Your task to perform on an android device: turn on javascript in the chrome app Image 0: 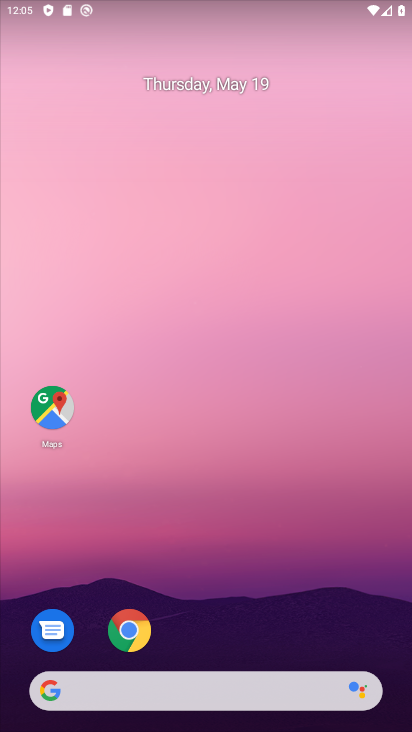
Step 0: click (133, 636)
Your task to perform on an android device: turn on javascript in the chrome app Image 1: 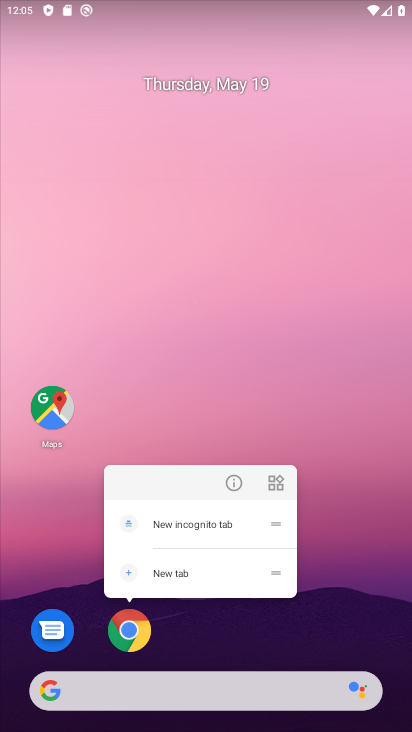
Step 1: click (226, 478)
Your task to perform on an android device: turn on javascript in the chrome app Image 2: 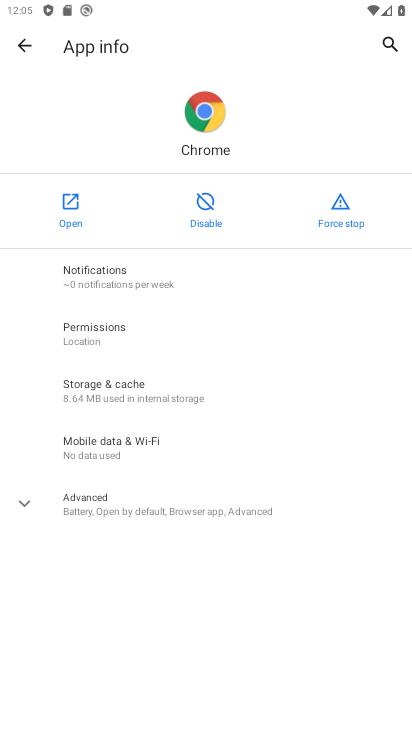
Step 2: click (53, 210)
Your task to perform on an android device: turn on javascript in the chrome app Image 3: 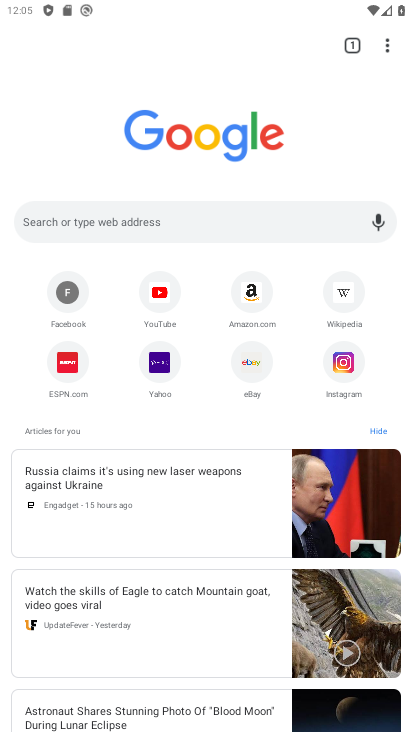
Step 3: click (378, 50)
Your task to perform on an android device: turn on javascript in the chrome app Image 4: 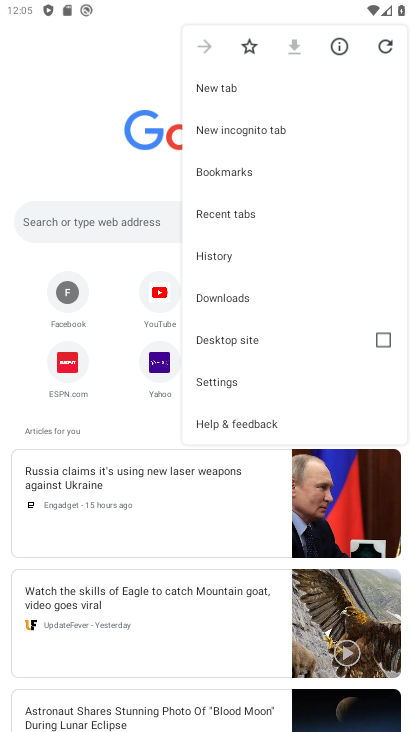
Step 4: click (227, 369)
Your task to perform on an android device: turn on javascript in the chrome app Image 5: 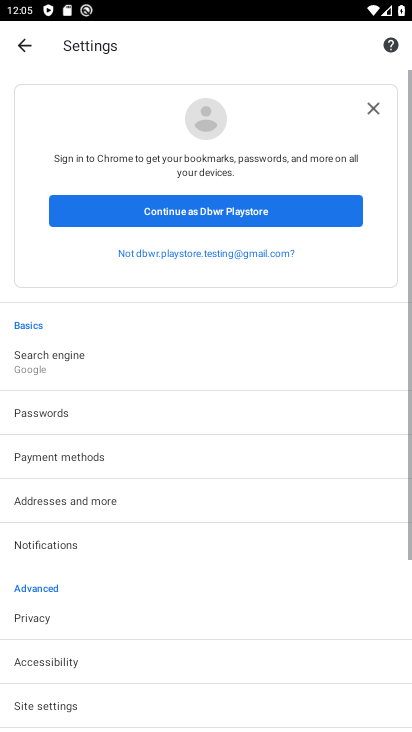
Step 5: click (57, 706)
Your task to perform on an android device: turn on javascript in the chrome app Image 6: 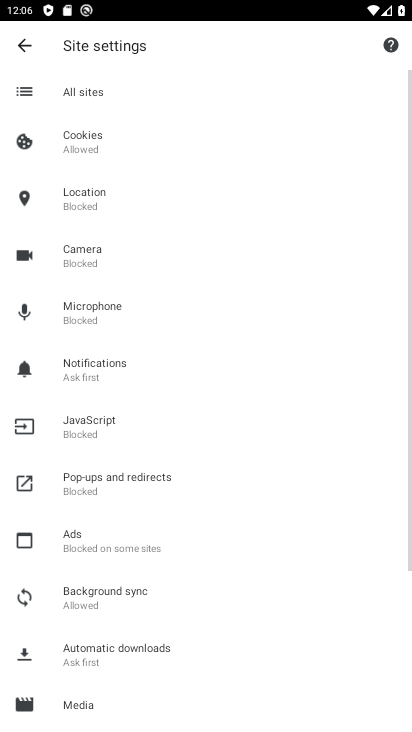
Step 6: click (88, 439)
Your task to perform on an android device: turn on javascript in the chrome app Image 7: 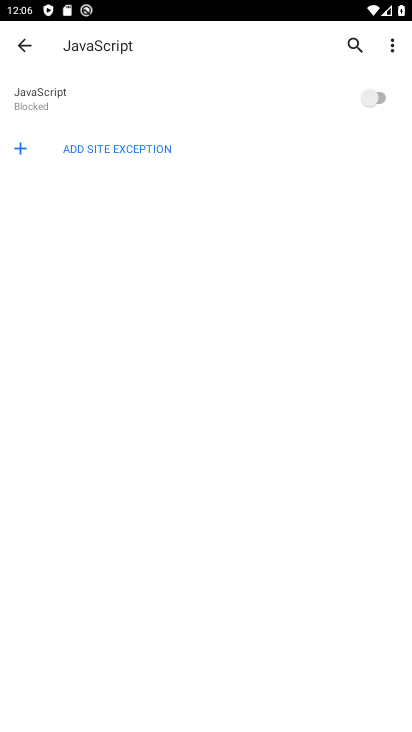
Step 7: click (381, 91)
Your task to perform on an android device: turn on javascript in the chrome app Image 8: 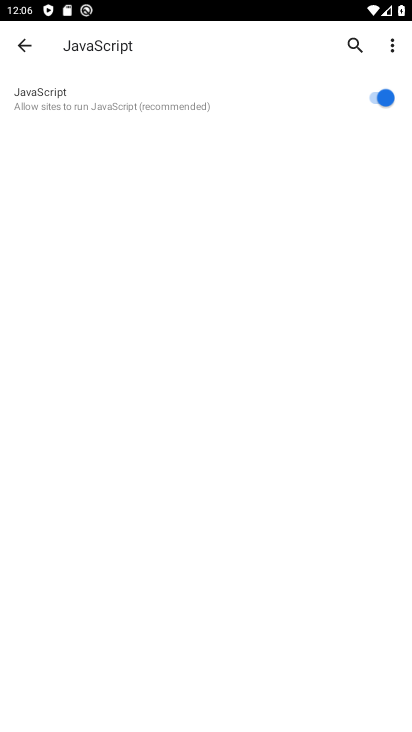
Step 8: task complete